Your task to perform on an android device: Open the web browser Image 0: 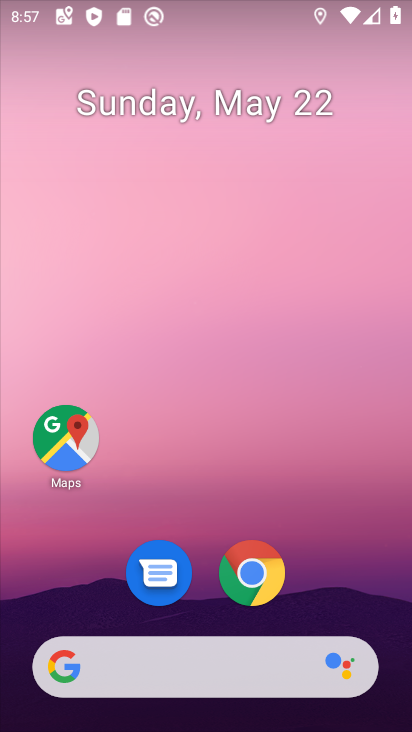
Step 0: drag from (367, 666) to (402, 12)
Your task to perform on an android device: Open the web browser Image 1: 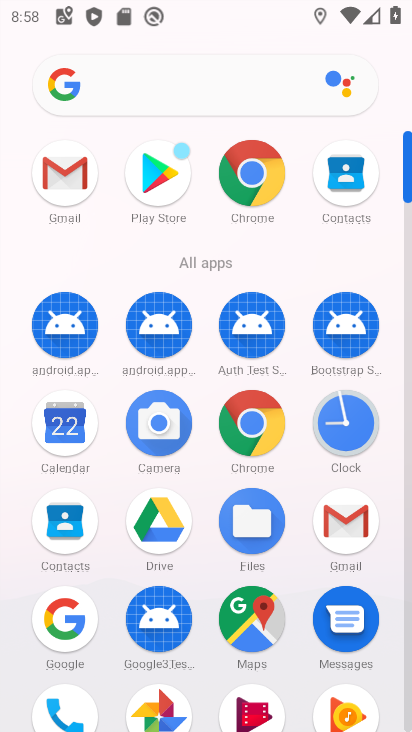
Step 1: click (245, 438)
Your task to perform on an android device: Open the web browser Image 2: 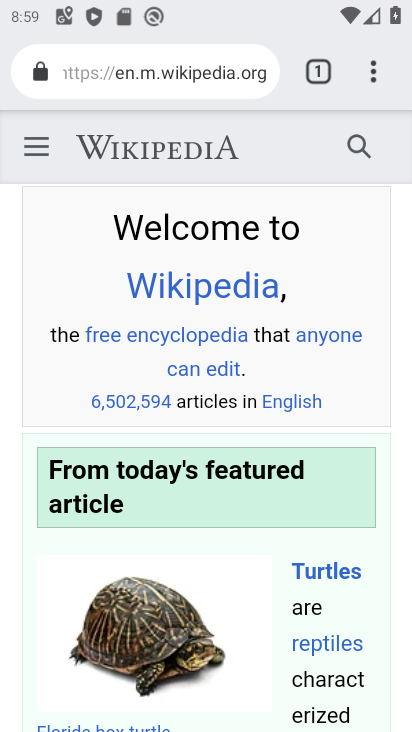
Step 2: task complete